Your task to perform on an android device: turn on the 12-hour format for clock Image 0: 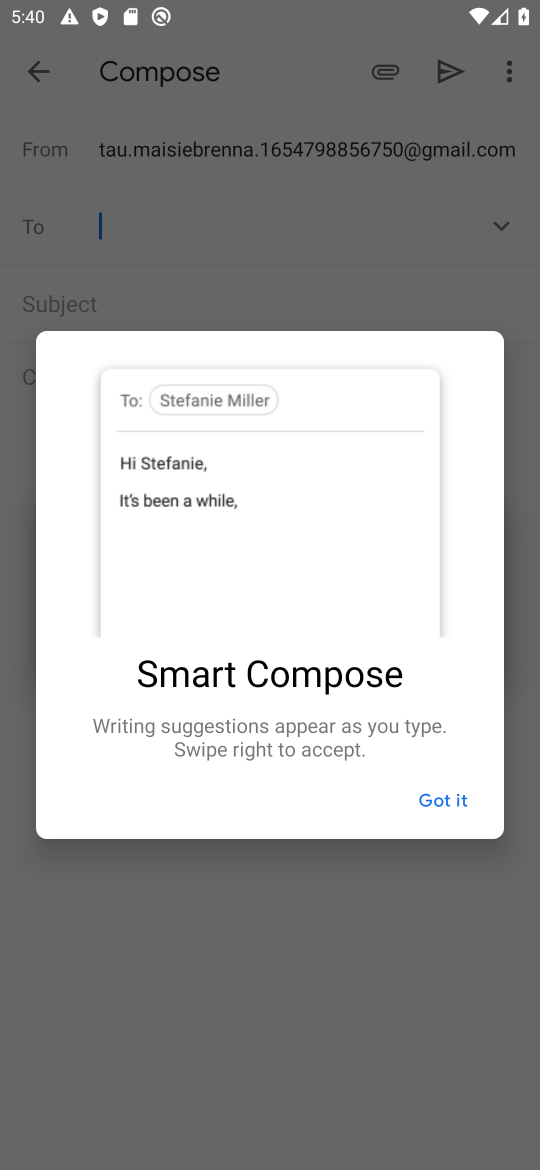
Step 0: press home button
Your task to perform on an android device: turn on the 12-hour format for clock Image 1: 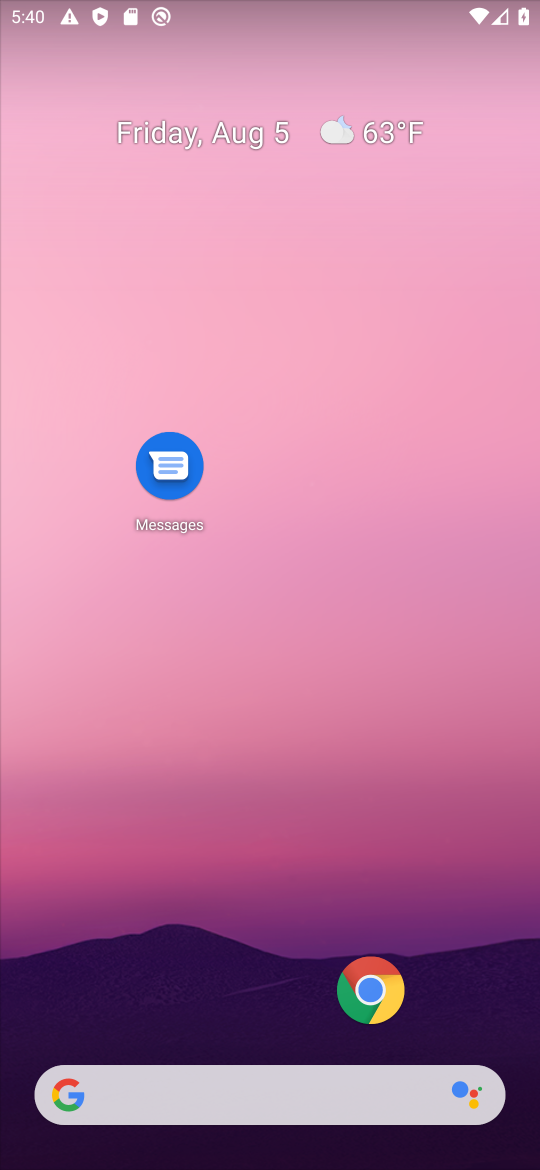
Step 1: drag from (228, 1079) to (156, 636)
Your task to perform on an android device: turn on the 12-hour format for clock Image 2: 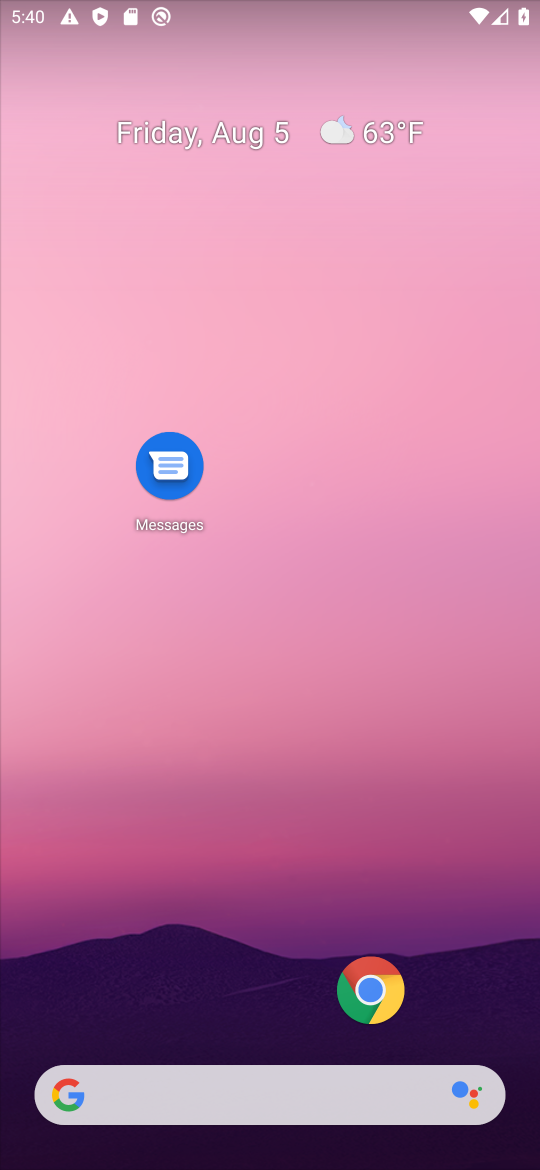
Step 2: drag from (252, 1056) to (228, 403)
Your task to perform on an android device: turn on the 12-hour format for clock Image 3: 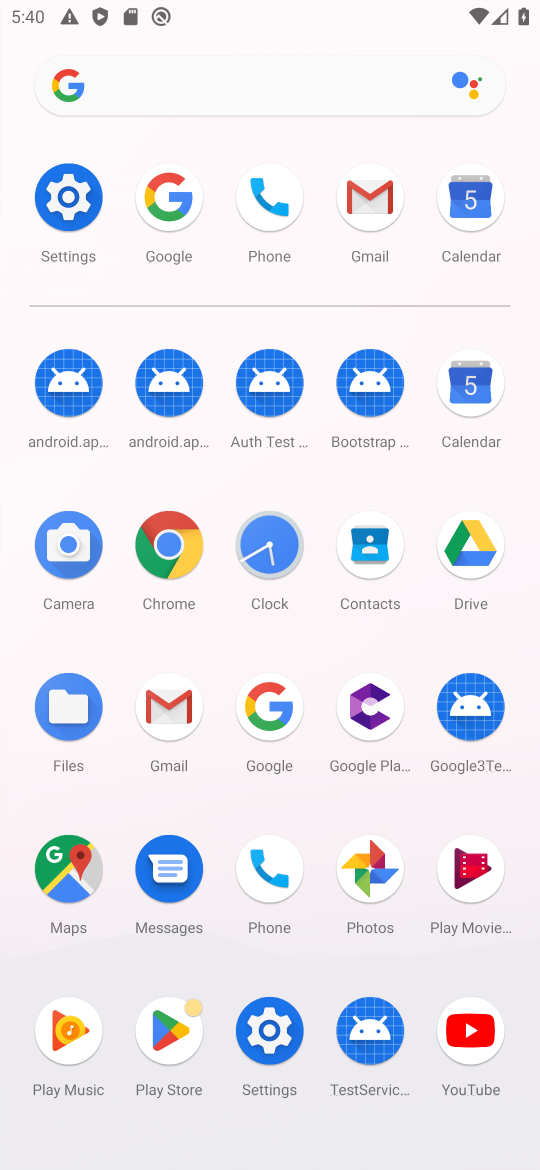
Step 3: click (260, 556)
Your task to perform on an android device: turn on the 12-hour format for clock Image 4: 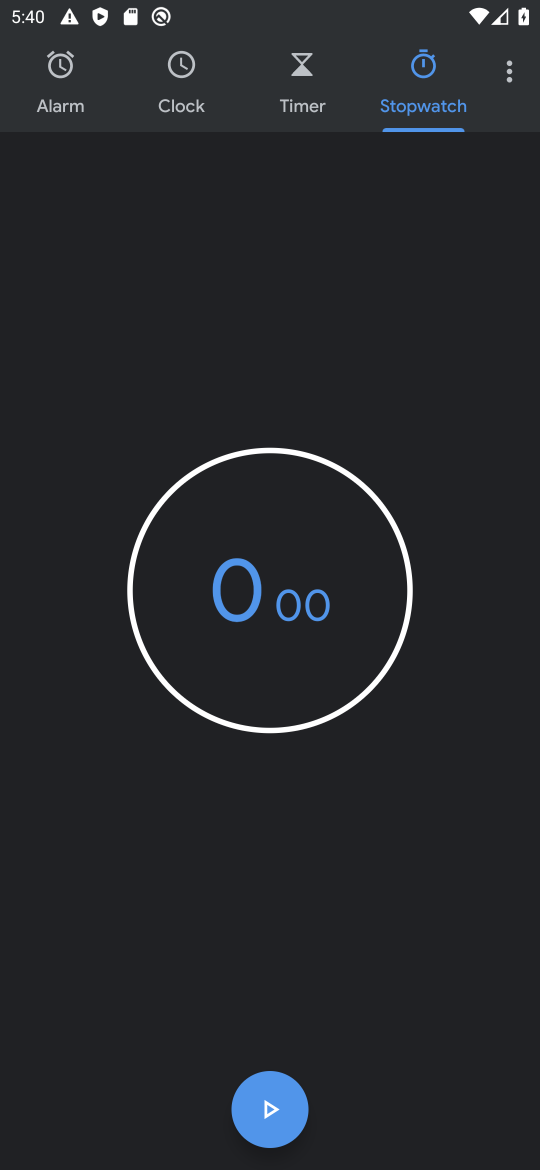
Step 4: click (511, 76)
Your task to perform on an android device: turn on the 12-hour format for clock Image 5: 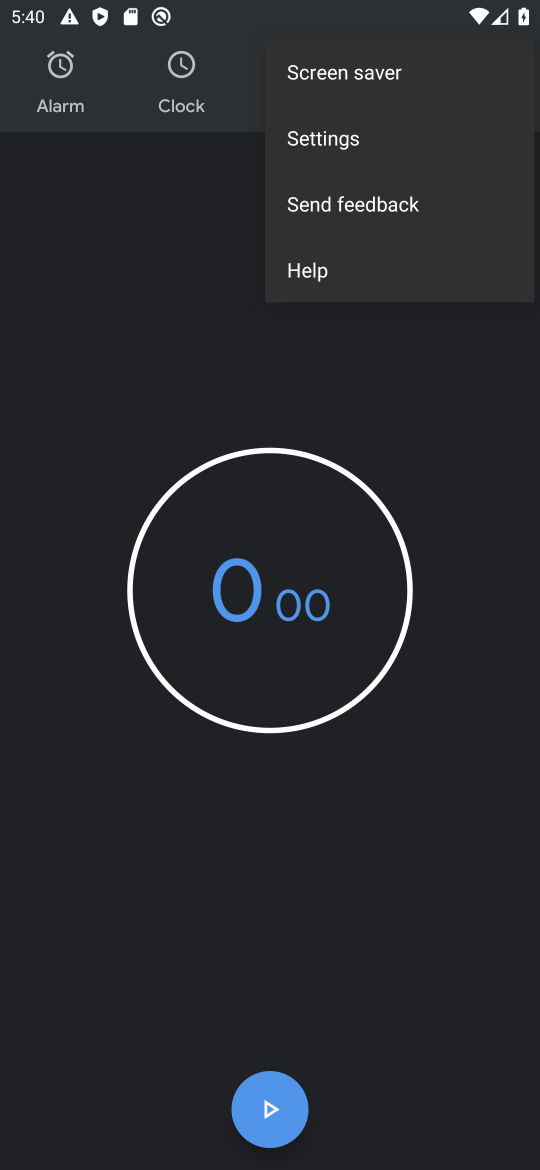
Step 5: click (346, 157)
Your task to perform on an android device: turn on the 12-hour format for clock Image 6: 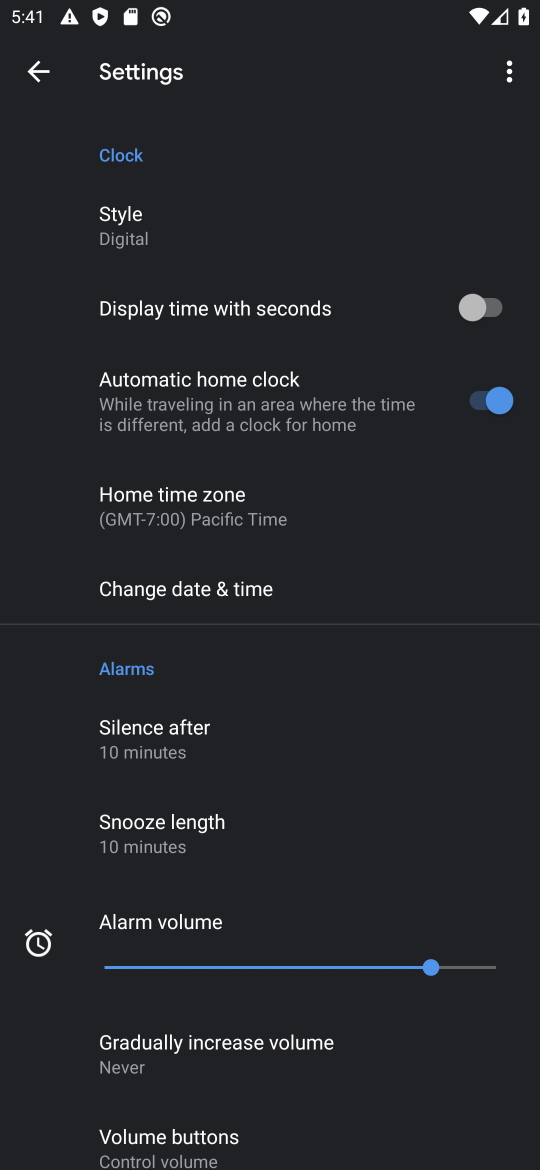
Step 6: click (155, 600)
Your task to perform on an android device: turn on the 12-hour format for clock Image 7: 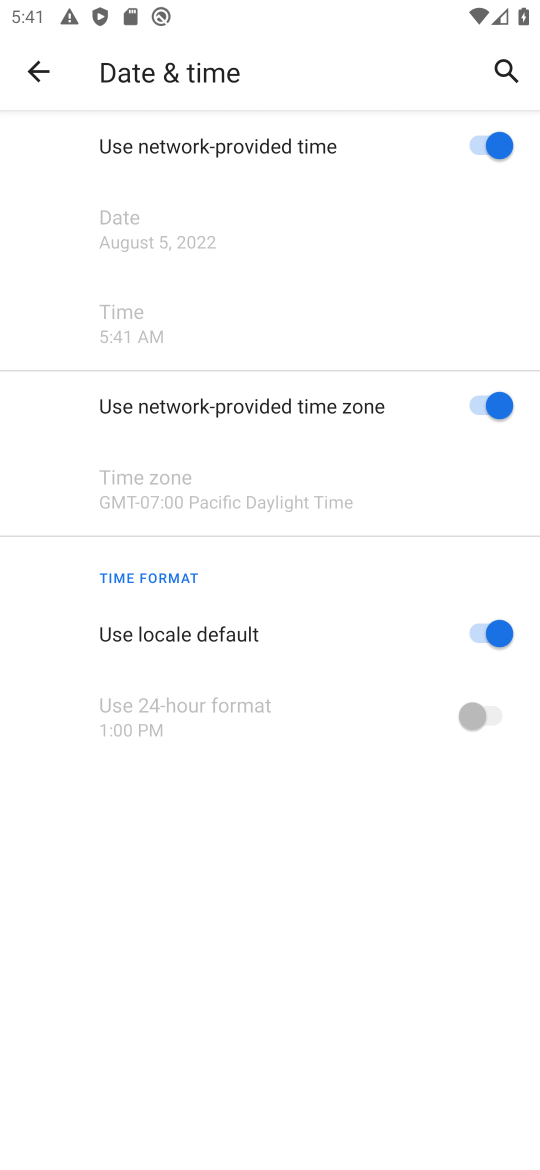
Step 7: click (477, 711)
Your task to perform on an android device: turn on the 12-hour format for clock Image 8: 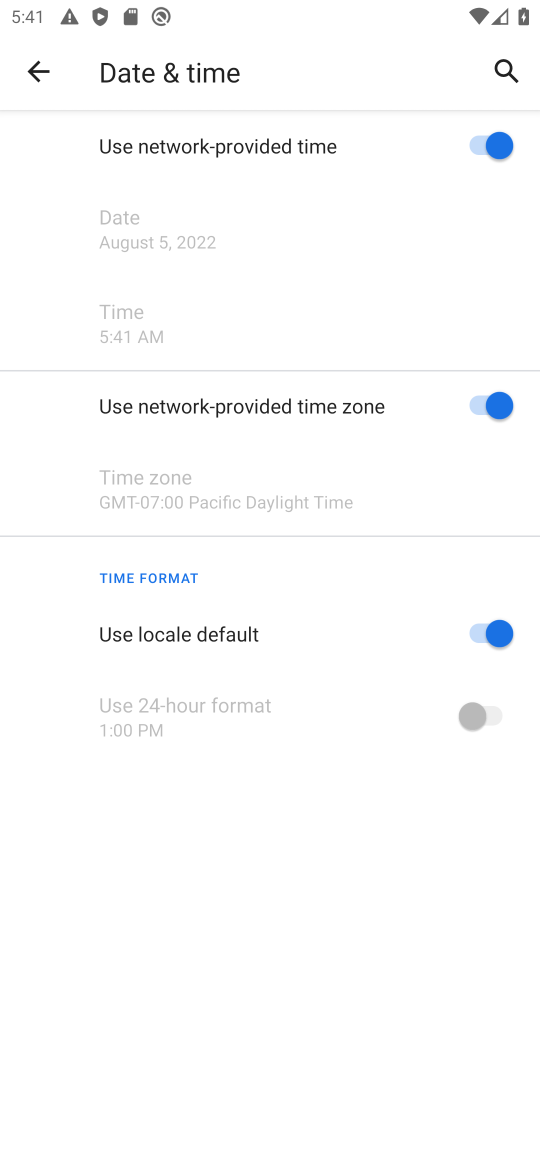
Step 8: click (475, 627)
Your task to perform on an android device: turn on the 12-hour format for clock Image 9: 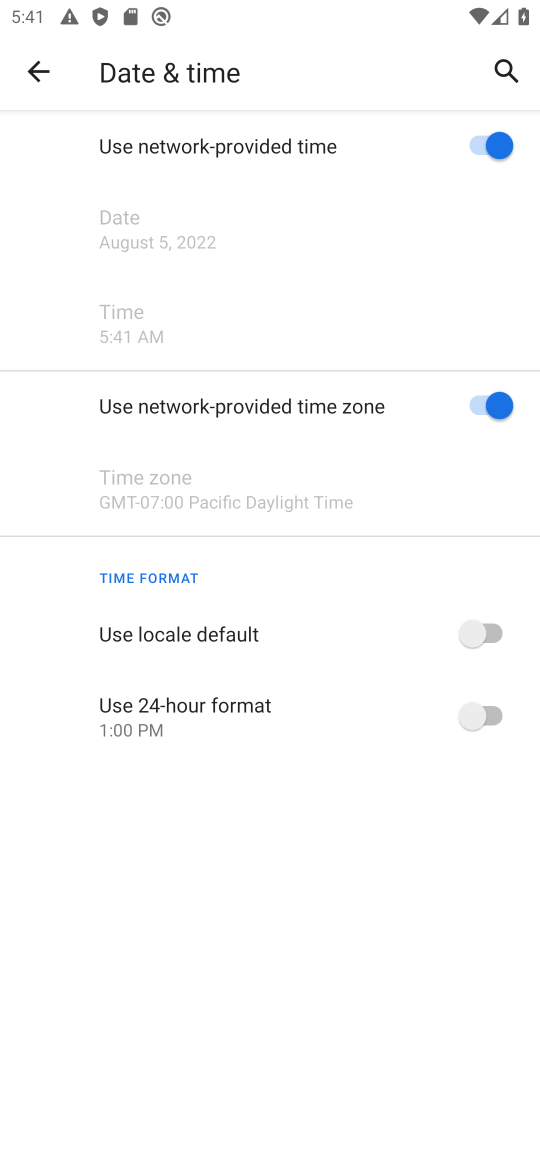
Step 9: task complete